Your task to perform on an android device: Go to Google Image 0: 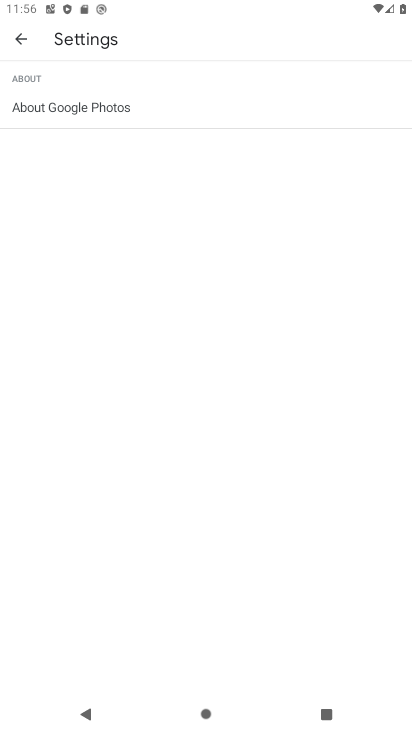
Step 0: press home button
Your task to perform on an android device: Go to Google Image 1: 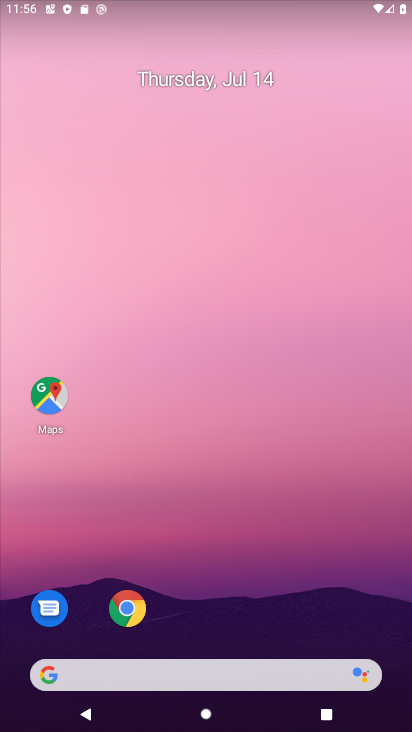
Step 1: click (112, 675)
Your task to perform on an android device: Go to Google Image 2: 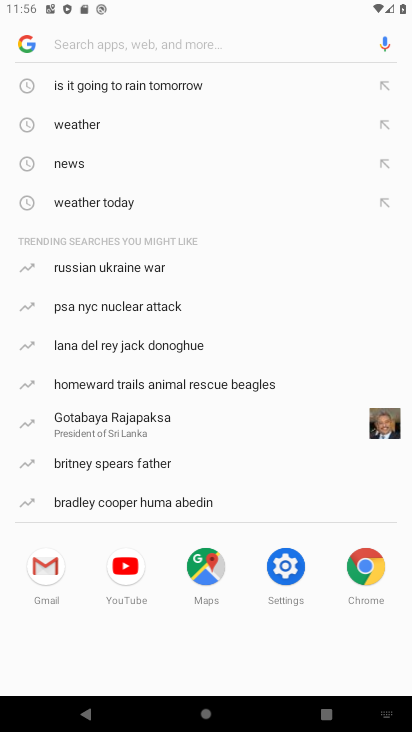
Step 2: task complete